Your task to perform on an android device: toggle wifi Image 0: 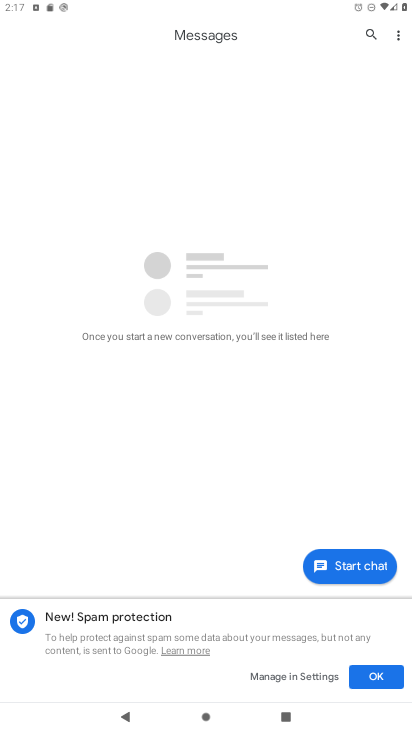
Step 0: press home button
Your task to perform on an android device: toggle wifi Image 1: 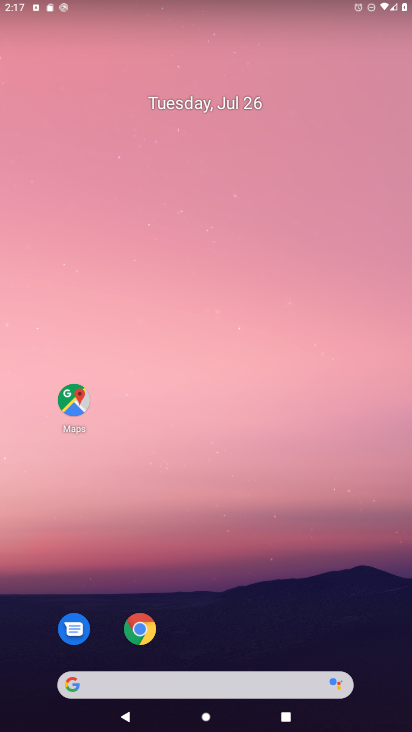
Step 1: drag from (393, 673) to (319, 175)
Your task to perform on an android device: toggle wifi Image 2: 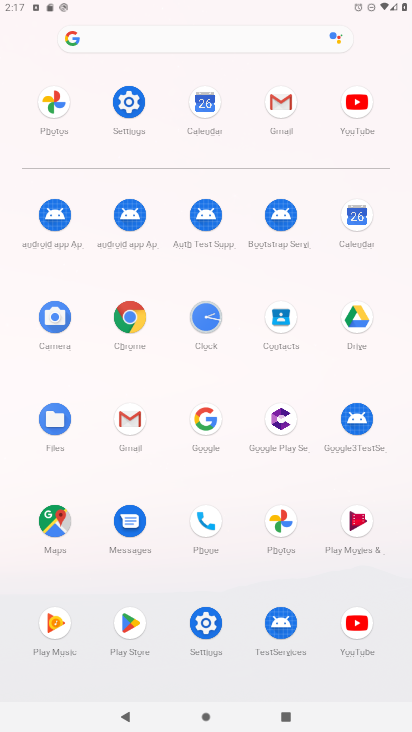
Step 2: click (205, 623)
Your task to perform on an android device: toggle wifi Image 3: 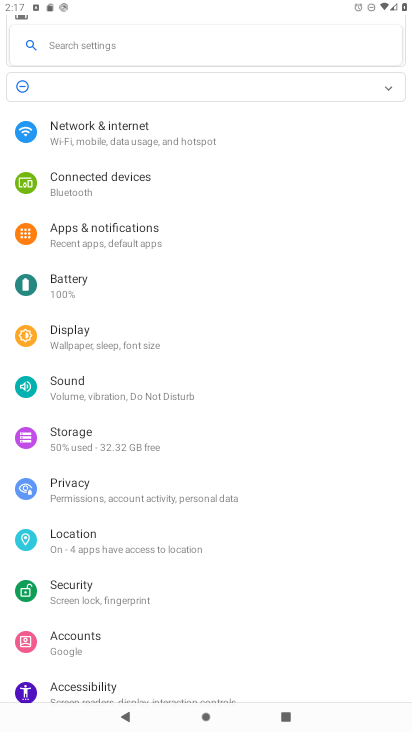
Step 3: click (77, 124)
Your task to perform on an android device: toggle wifi Image 4: 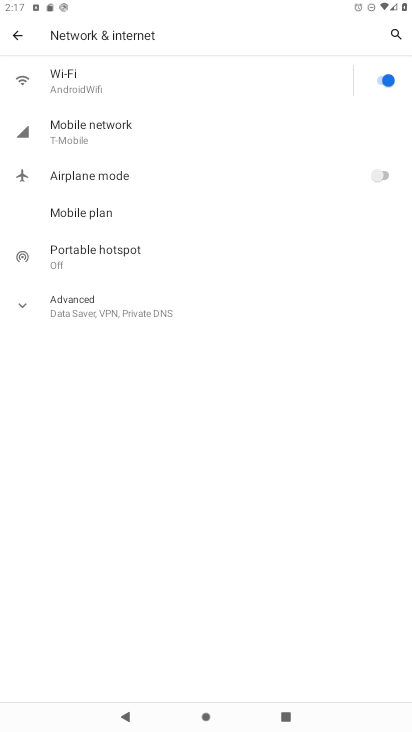
Step 4: click (380, 82)
Your task to perform on an android device: toggle wifi Image 5: 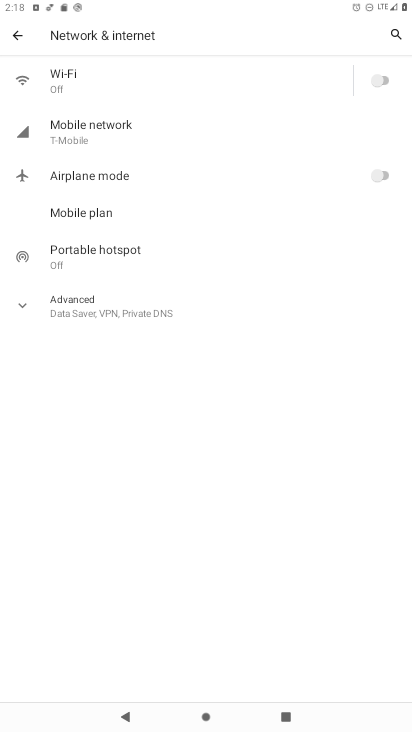
Step 5: task complete